Your task to perform on an android device: Open the web browser Image 0: 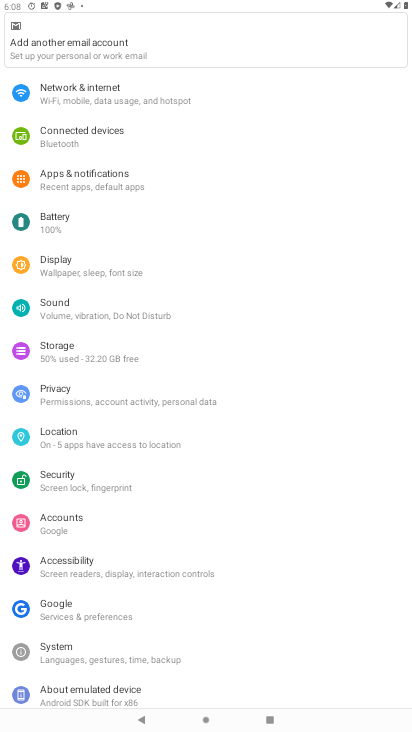
Step 0: press home button
Your task to perform on an android device: Open the web browser Image 1: 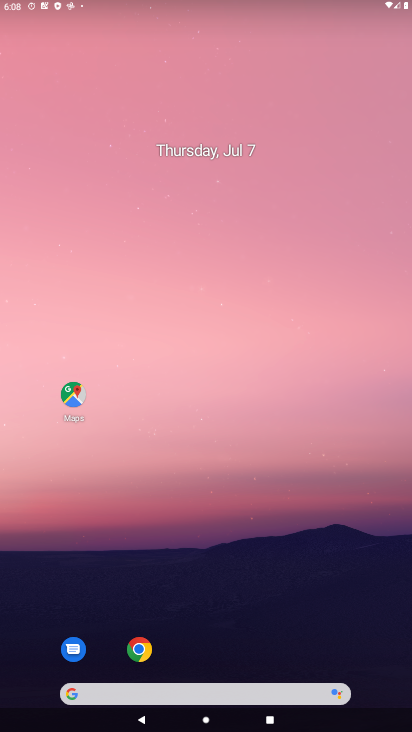
Step 1: drag from (340, 686) to (226, 57)
Your task to perform on an android device: Open the web browser Image 2: 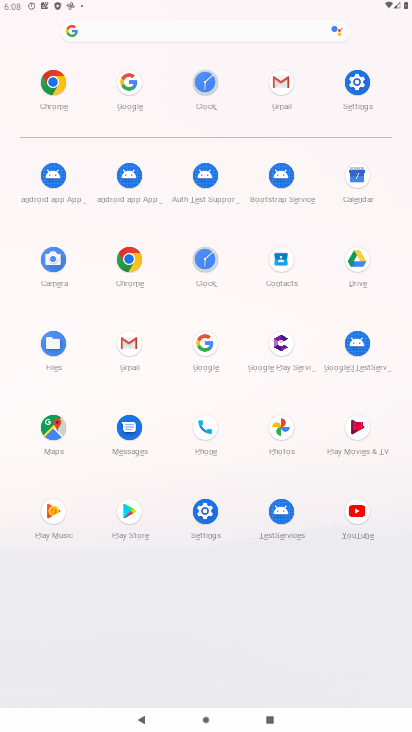
Step 2: click (197, 349)
Your task to perform on an android device: Open the web browser Image 3: 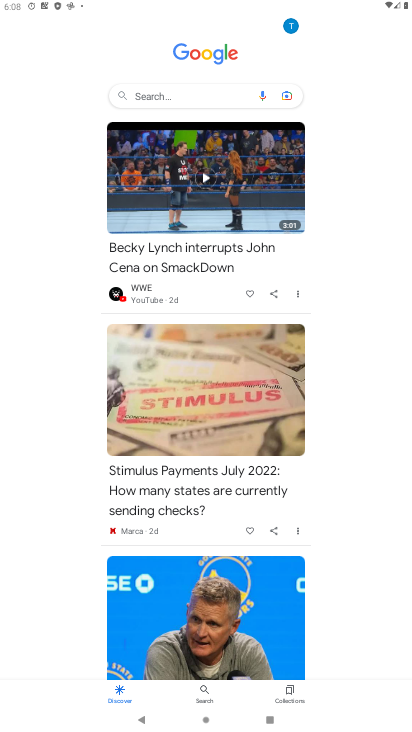
Step 3: click (152, 98)
Your task to perform on an android device: Open the web browser Image 4: 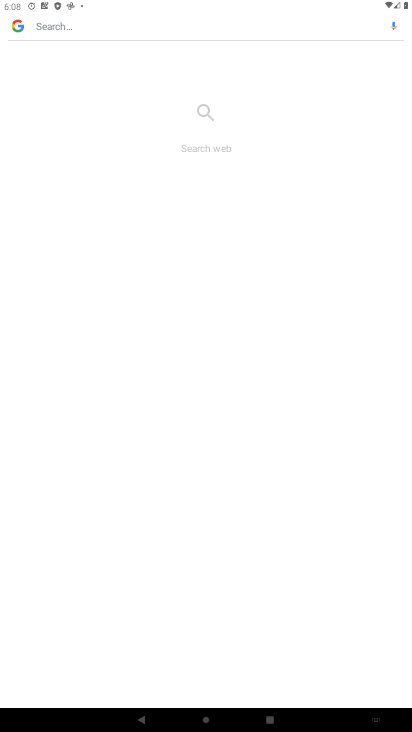
Step 4: type "web browser"
Your task to perform on an android device: Open the web browser Image 5: 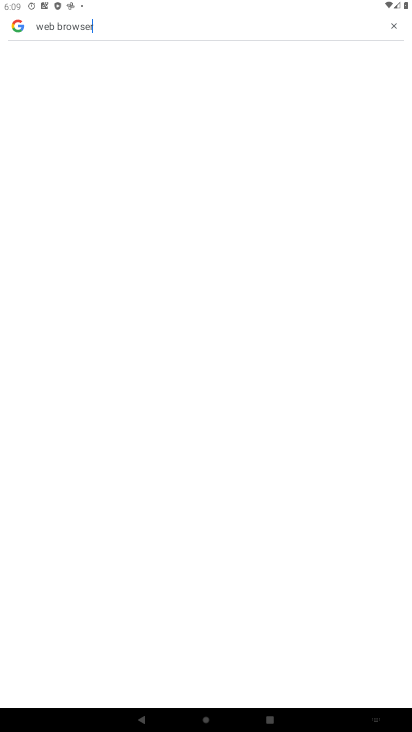
Step 5: task complete